Your task to perform on an android device: Play the last video I watched on Youtube Image 0: 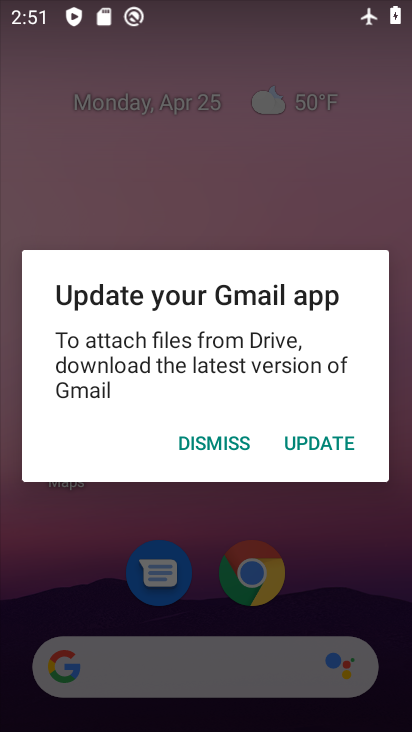
Step 0: press home button
Your task to perform on an android device: Play the last video I watched on Youtube Image 1: 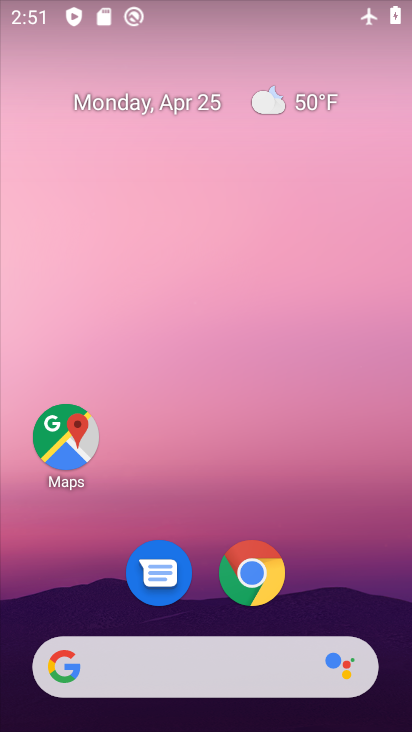
Step 1: drag from (285, 94) to (10, 108)
Your task to perform on an android device: Play the last video I watched on Youtube Image 2: 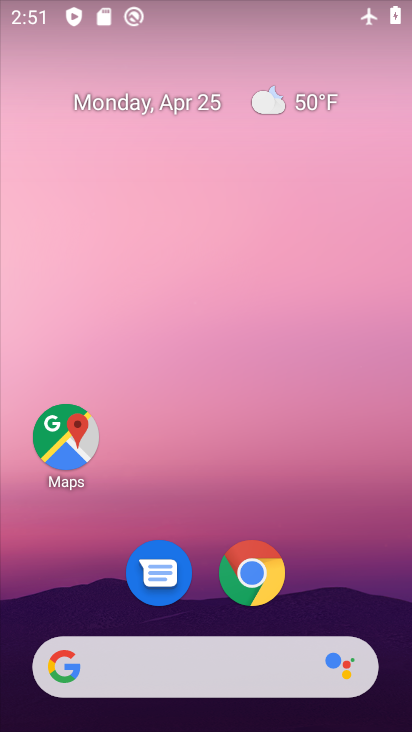
Step 2: drag from (352, 583) to (264, 60)
Your task to perform on an android device: Play the last video I watched on Youtube Image 3: 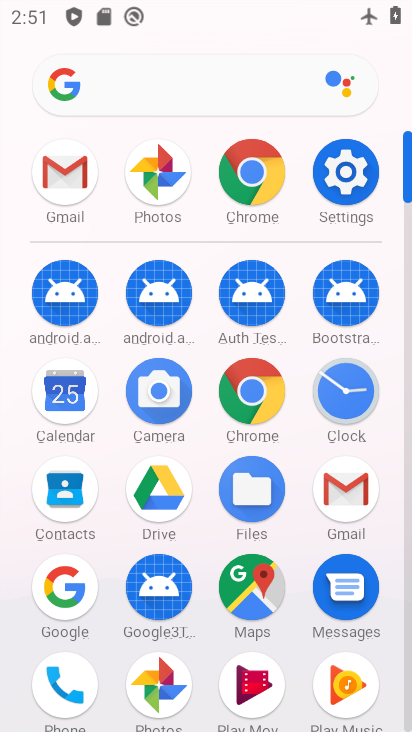
Step 3: drag from (379, 507) to (360, 128)
Your task to perform on an android device: Play the last video I watched on Youtube Image 4: 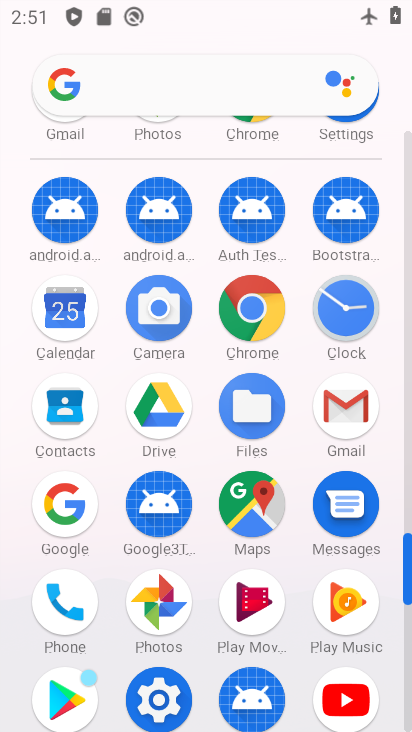
Step 4: drag from (398, 645) to (378, 180)
Your task to perform on an android device: Play the last video I watched on Youtube Image 5: 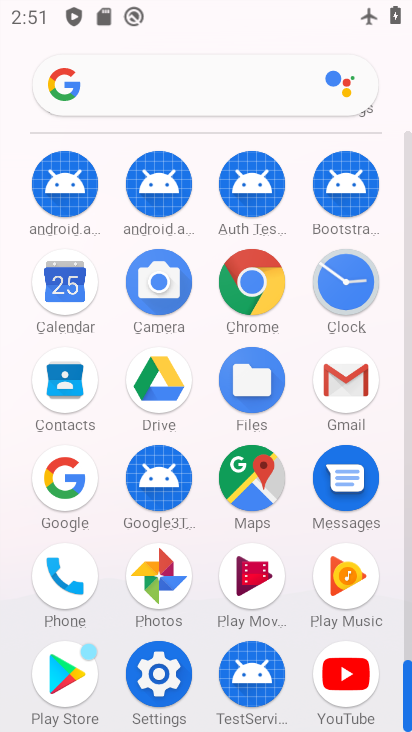
Step 5: click (339, 682)
Your task to perform on an android device: Play the last video I watched on Youtube Image 6: 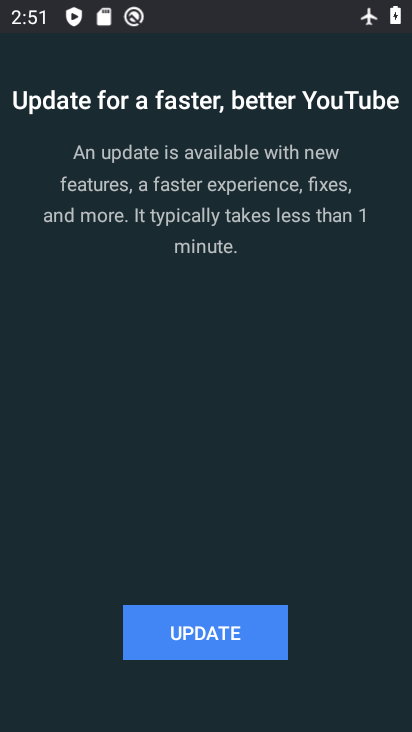
Step 6: click (238, 631)
Your task to perform on an android device: Play the last video I watched on Youtube Image 7: 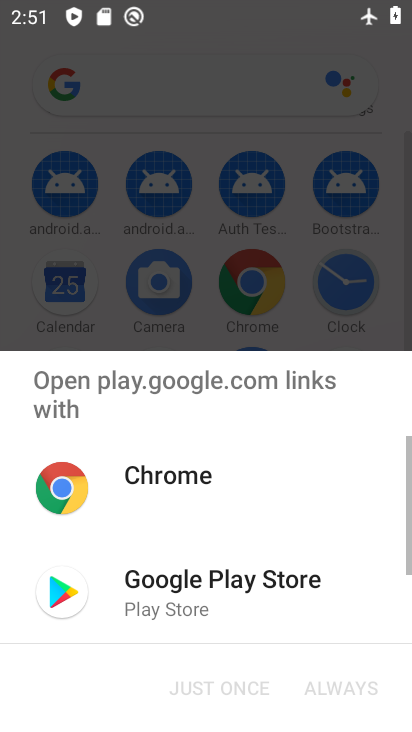
Step 7: click (117, 581)
Your task to perform on an android device: Play the last video I watched on Youtube Image 8: 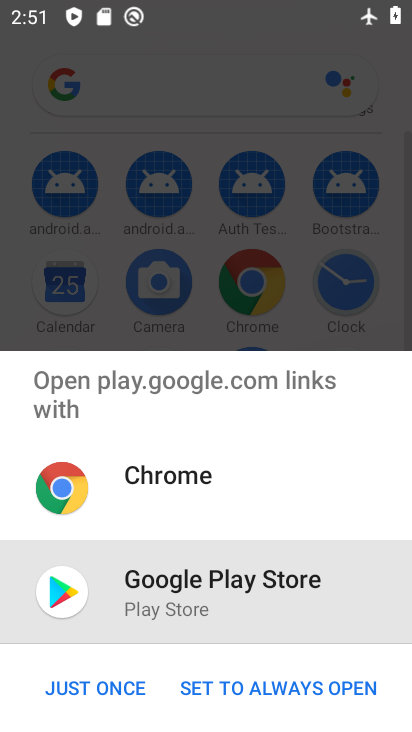
Step 8: click (110, 685)
Your task to perform on an android device: Play the last video I watched on Youtube Image 9: 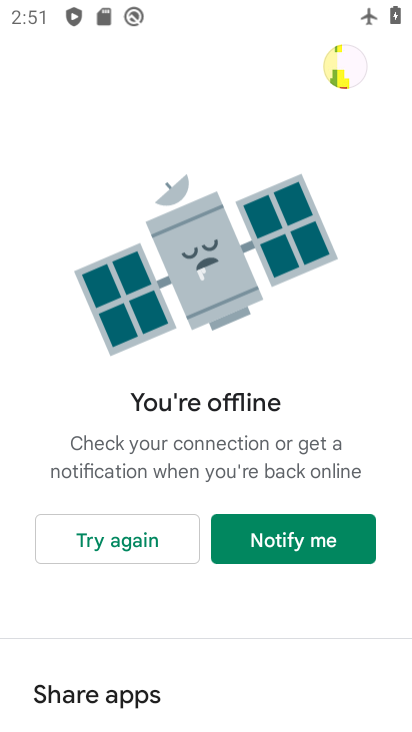
Step 9: click (82, 545)
Your task to perform on an android device: Play the last video I watched on Youtube Image 10: 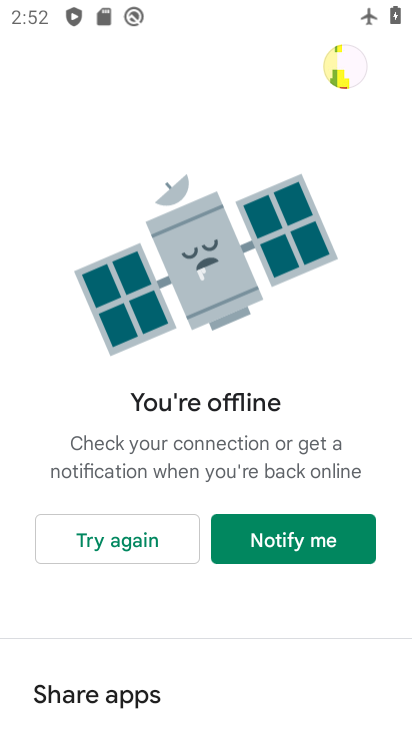
Step 10: click (82, 545)
Your task to perform on an android device: Play the last video I watched on Youtube Image 11: 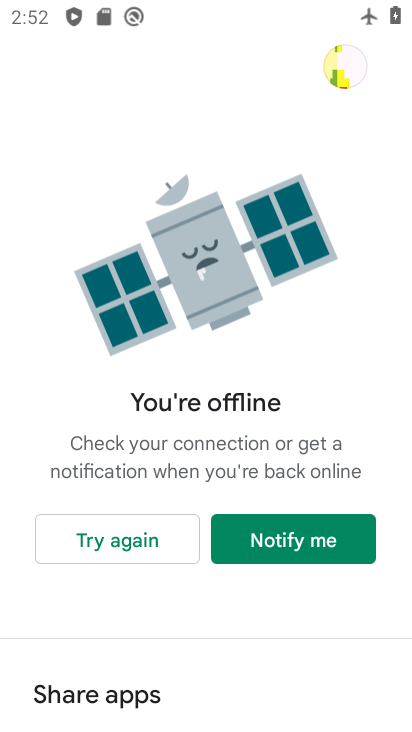
Step 11: click (82, 545)
Your task to perform on an android device: Play the last video I watched on Youtube Image 12: 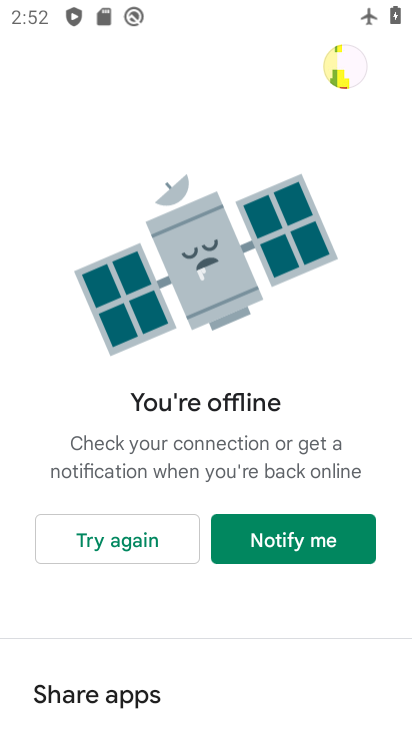
Step 12: task complete